Your task to perform on an android device: clear all cookies in the chrome app Image 0: 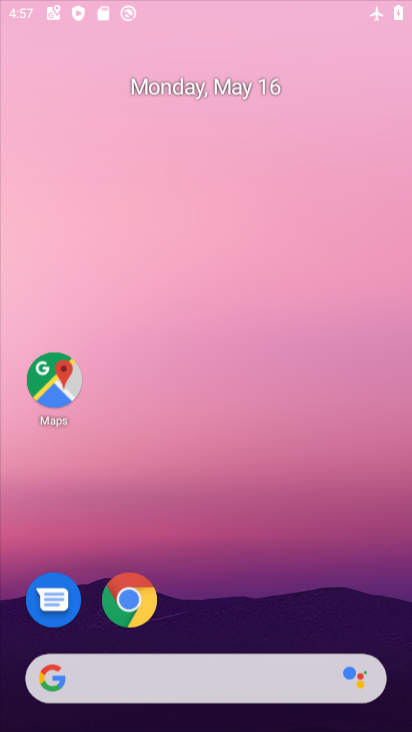
Step 0: click (145, 24)
Your task to perform on an android device: clear all cookies in the chrome app Image 1: 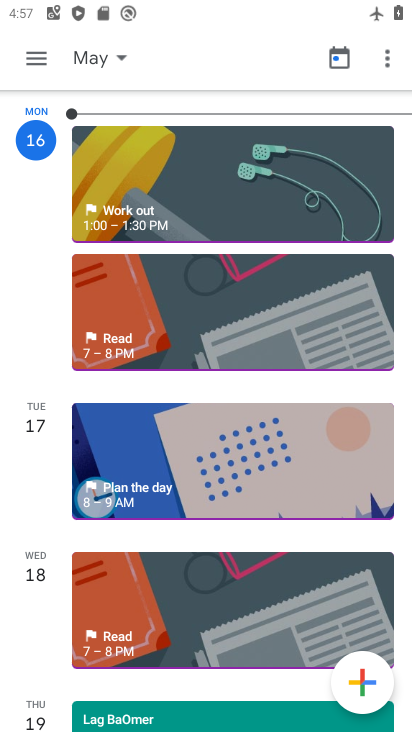
Step 1: press home button
Your task to perform on an android device: clear all cookies in the chrome app Image 2: 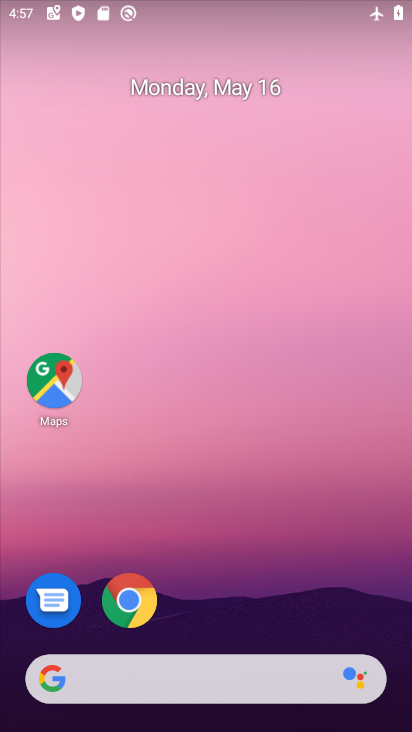
Step 2: drag from (205, 644) to (206, 97)
Your task to perform on an android device: clear all cookies in the chrome app Image 3: 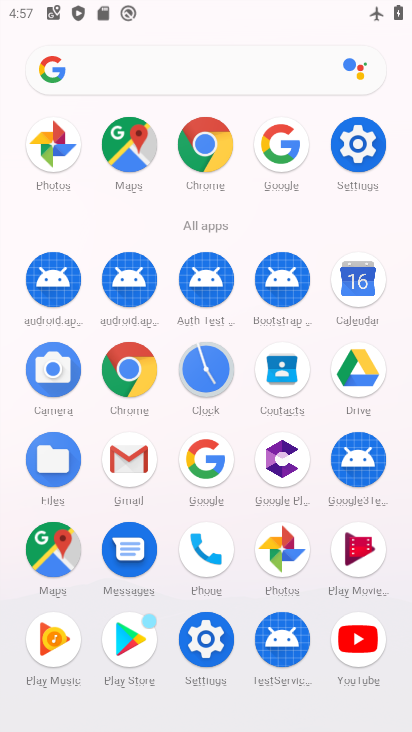
Step 3: click (136, 358)
Your task to perform on an android device: clear all cookies in the chrome app Image 4: 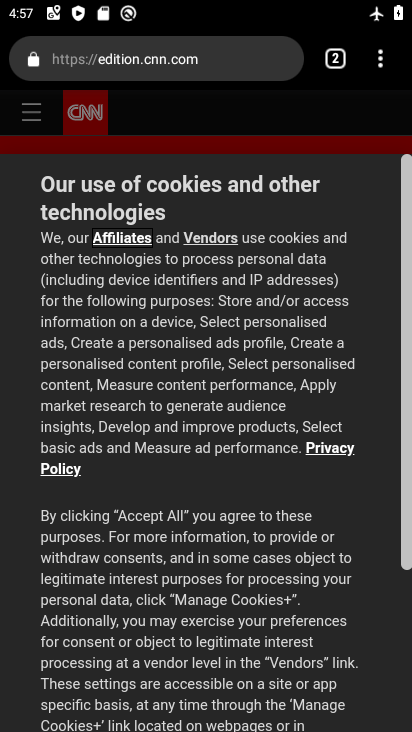
Step 4: click (382, 57)
Your task to perform on an android device: clear all cookies in the chrome app Image 5: 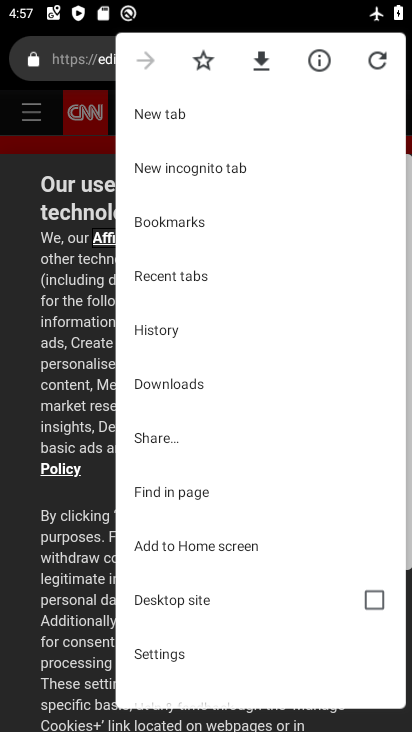
Step 5: click (168, 650)
Your task to perform on an android device: clear all cookies in the chrome app Image 6: 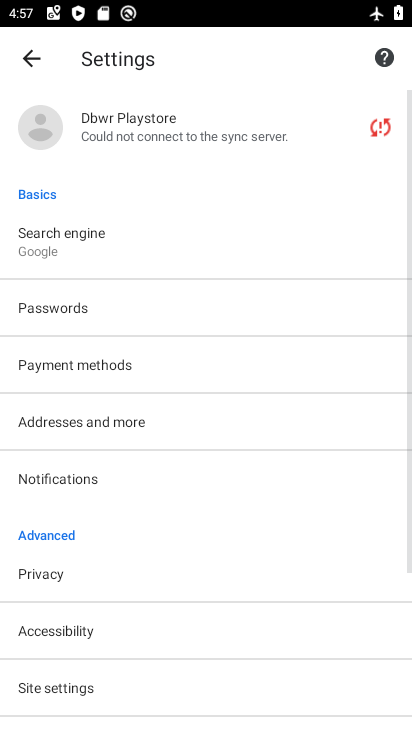
Step 6: click (62, 583)
Your task to perform on an android device: clear all cookies in the chrome app Image 7: 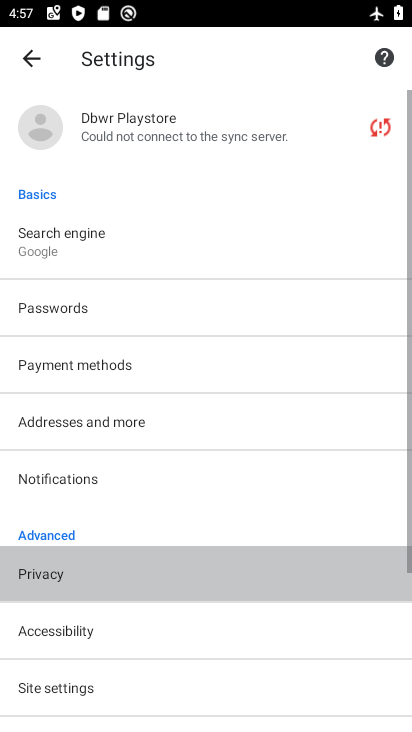
Step 7: drag from (168, 634) to (164, 21)
Your task to perform on an android device: clear all cookies in the chrome app Image 8: 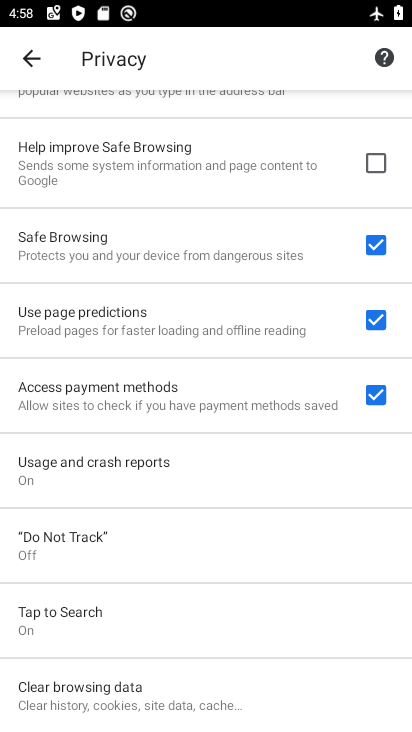
Step 8: drag from (188, 598) to (189, 177)
Your task to perform on an android device: clear all cookies in the chrome app Image 9: 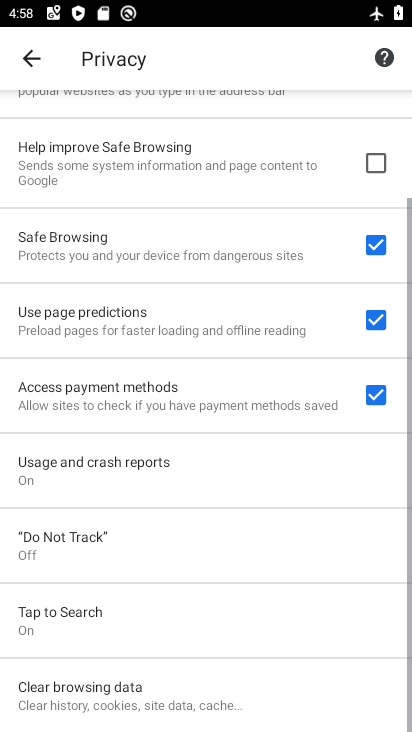
Step 9: click (115, 691)
Your task to perform on an android device: clear all cookies in the chrome app Image 10: 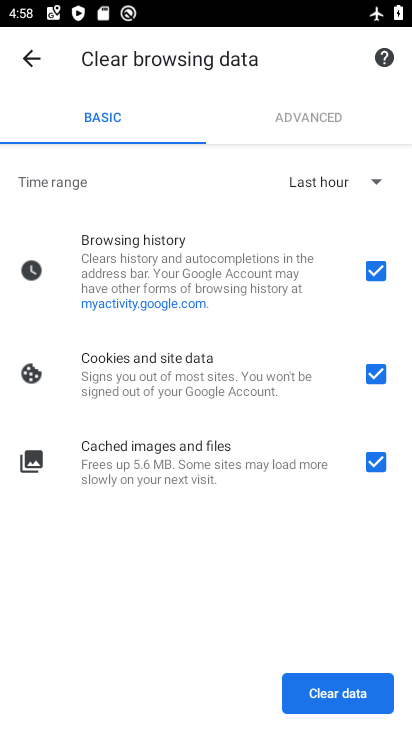
Step 10: click (360, 687)
Your task to perform on an android device: clear all cookies in the chrome app Image 11: 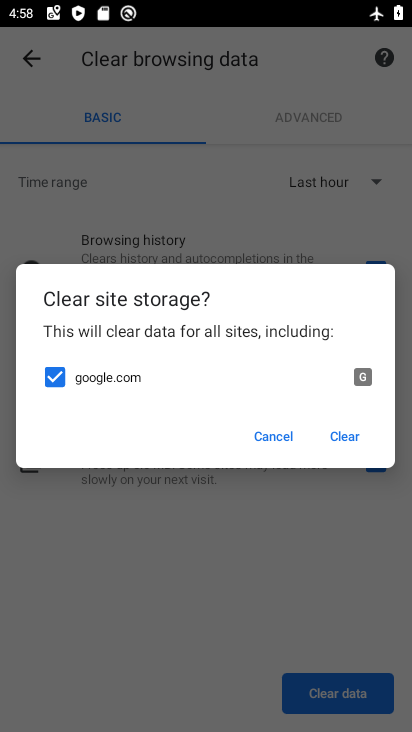
Step 11: click (354, 428)
Your task to perform on an android device: clear all cookies in the chrome app Image 12: 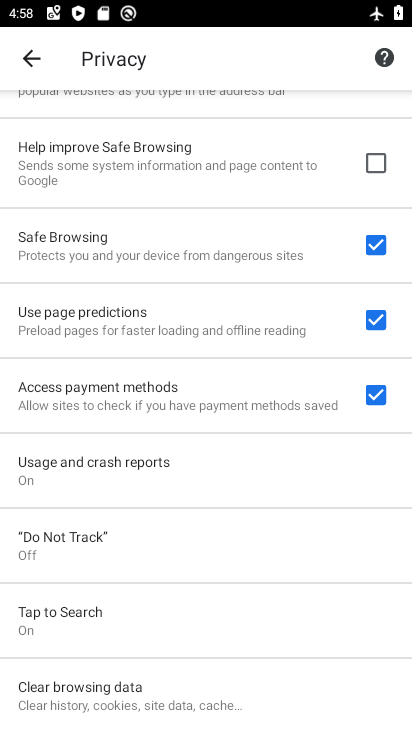
Step 12: task complete